Your task to perform on an android device: turn on the 12-hour format for clock Image 0: 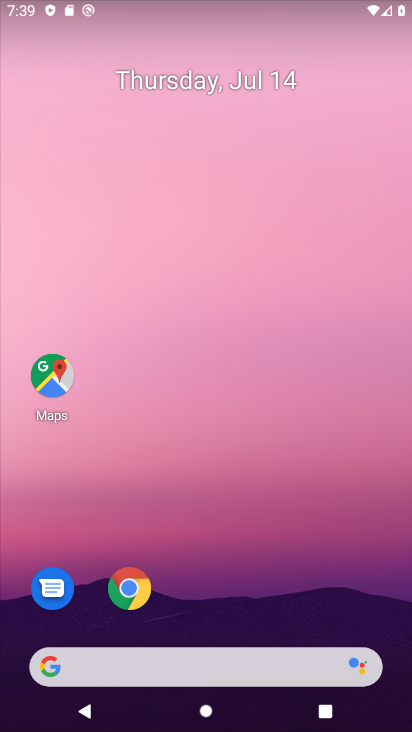
Step 0: drag from (304, 565) to (253, 104)
Your task to perform on an android device: turn on the 12-hour format for clock Image 1: 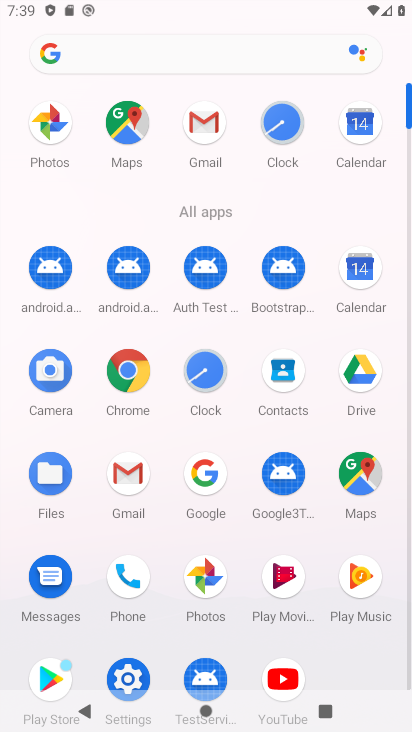
Step 1: click (285, 118)
Your task to perform on an android device: turn on the 12-hour format for clock Image 2: 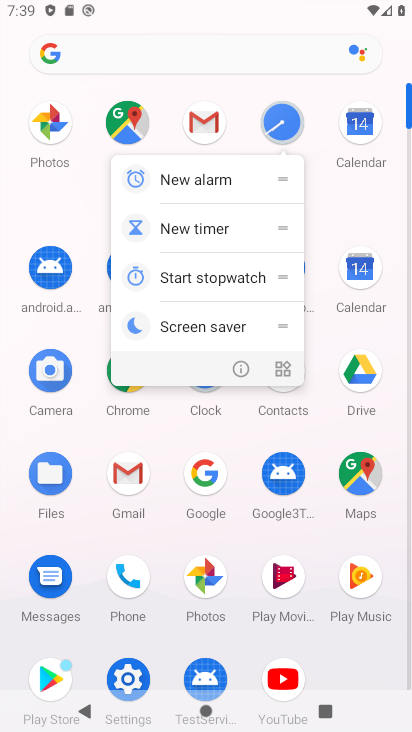
Step 2: click (285, 118)
Your task to perform on an android device: turn on the 12-hour format for clock Image 3: 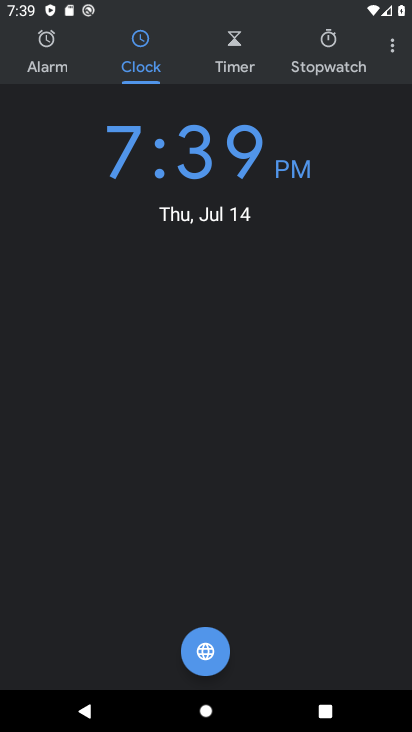
Step 3: click (391, 45)
Your task to perform on an android device: turn on the 12-hour format for clock Image 4: 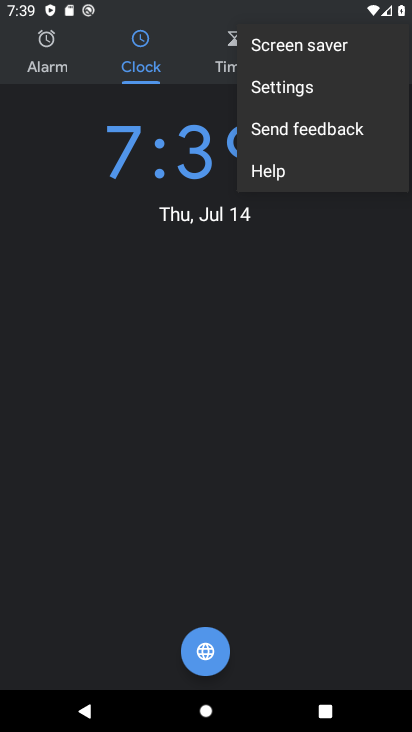
Step 4: click (309, 85)
Your task to perform on an android device: turn on the 12-hour format for clock Image 5: 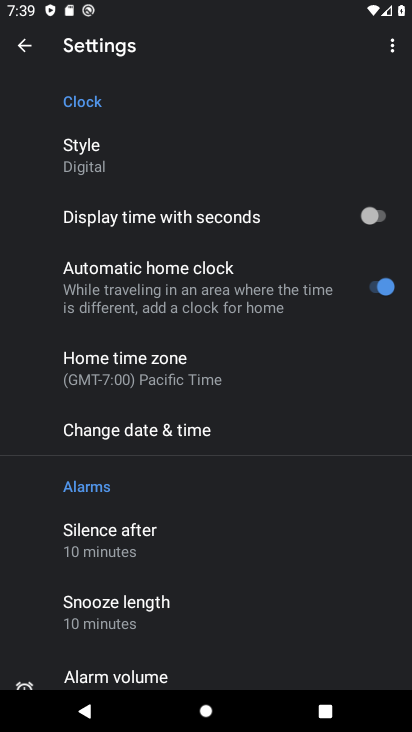
Step 5: click (151, 434)
Your task to perform on an android device: turn on the 12-hour format for clock Image 6: 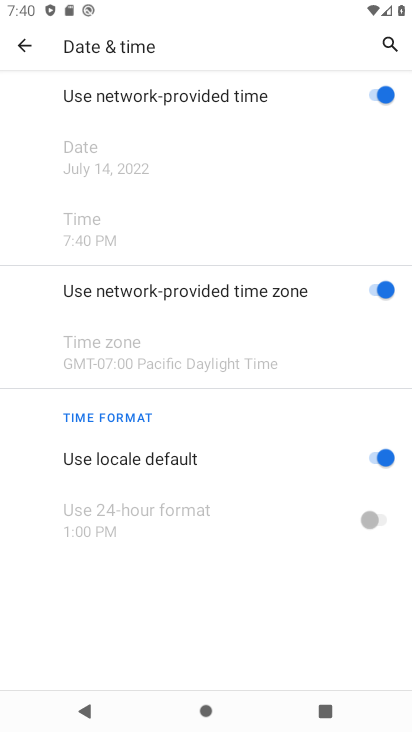
Step 6: task complete